Your task to perform on an android device: open app "Mercado Libre" (install if not already installed) Image 0: 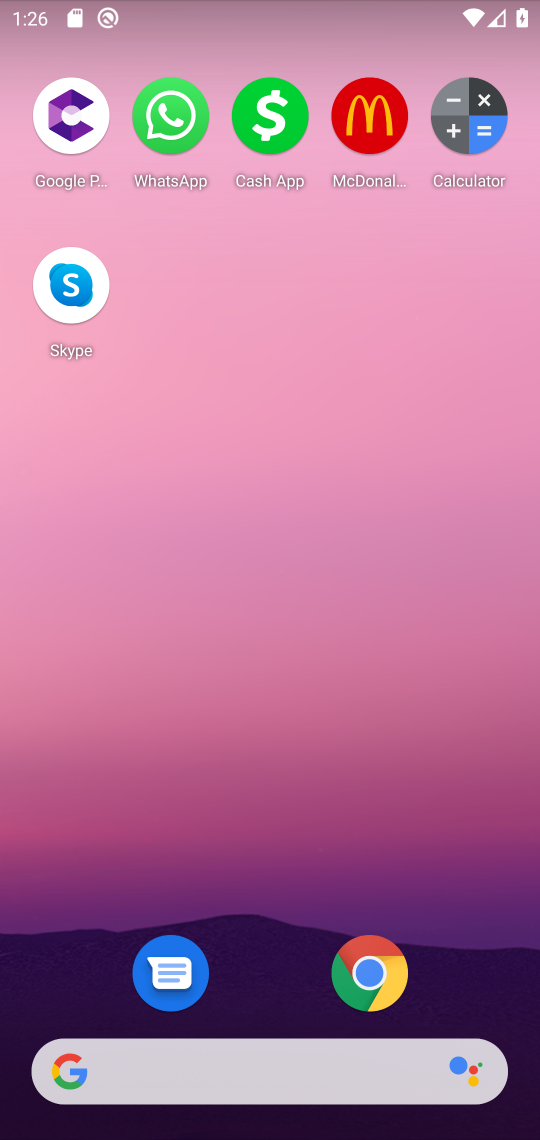
Step 0: drag from (283, 917) to (149, 22)
Your task to perform on an android device: open app "Mercado Libre" (install if not already installed) Image 1: 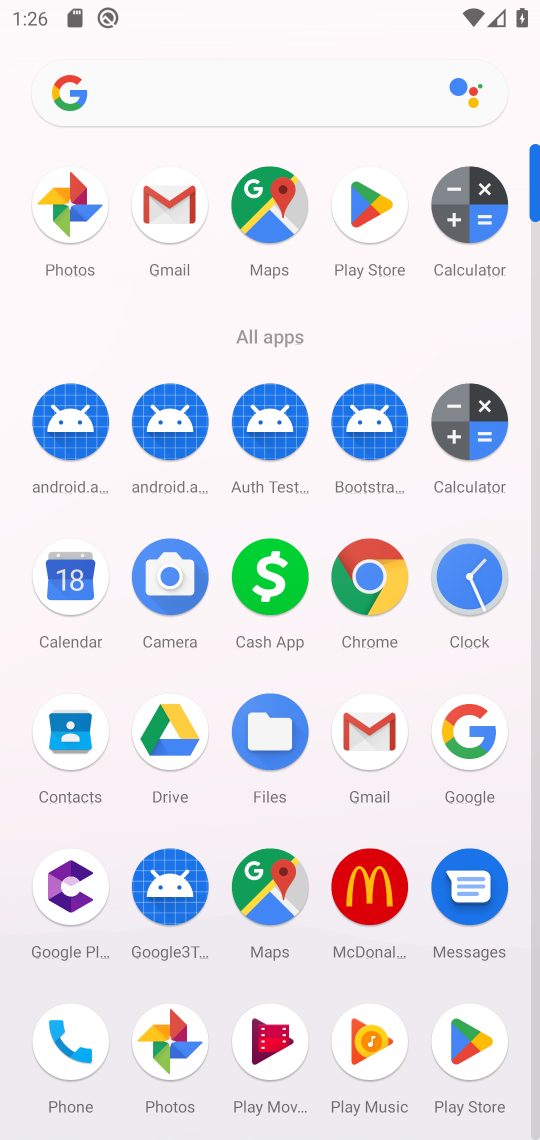
Step 1: click (242, 151)
Your task to perform on an android device: open app "Mercado Libre" (install if not already installed) Image 2: 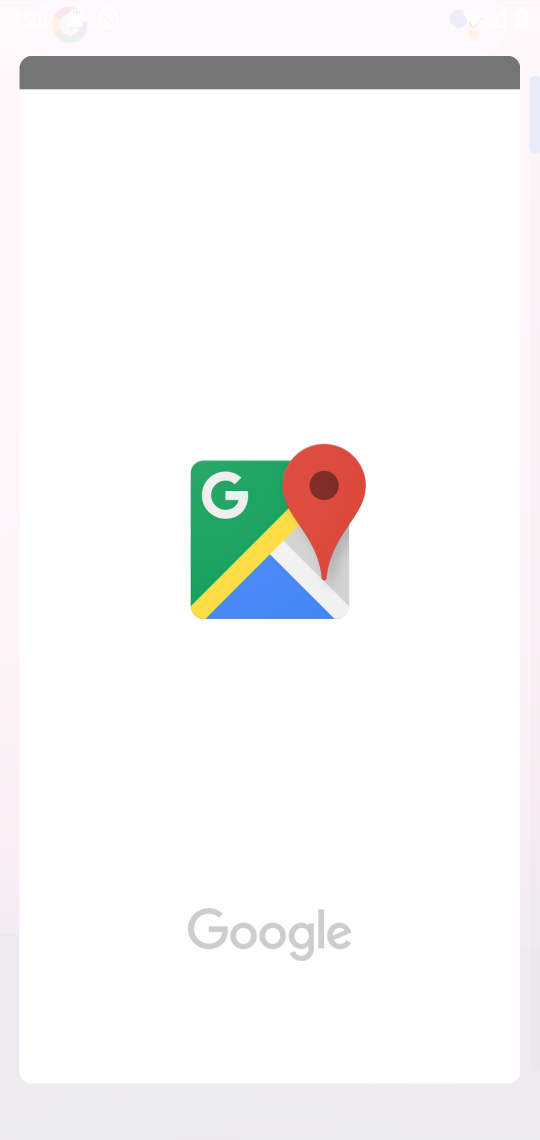
Step 2: click (364, 292)
Your task to perform on an android device: open app "Mercado Libre" (install if not already installed) Image 3: 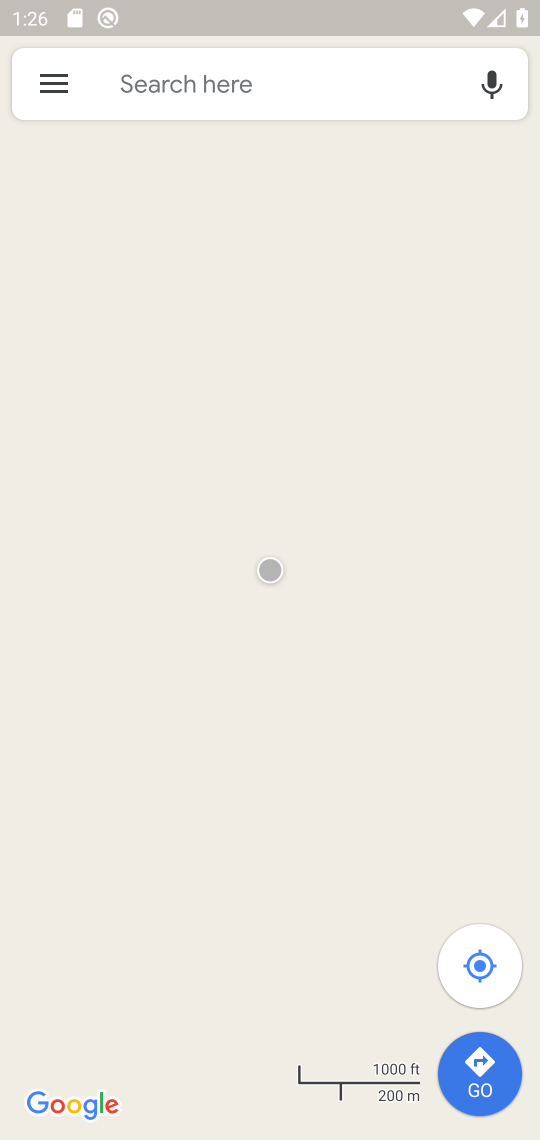
Step 3: press home button
Your task to perform on an android device: open app "Mercado Libre" (install if not already installed) Image 4: 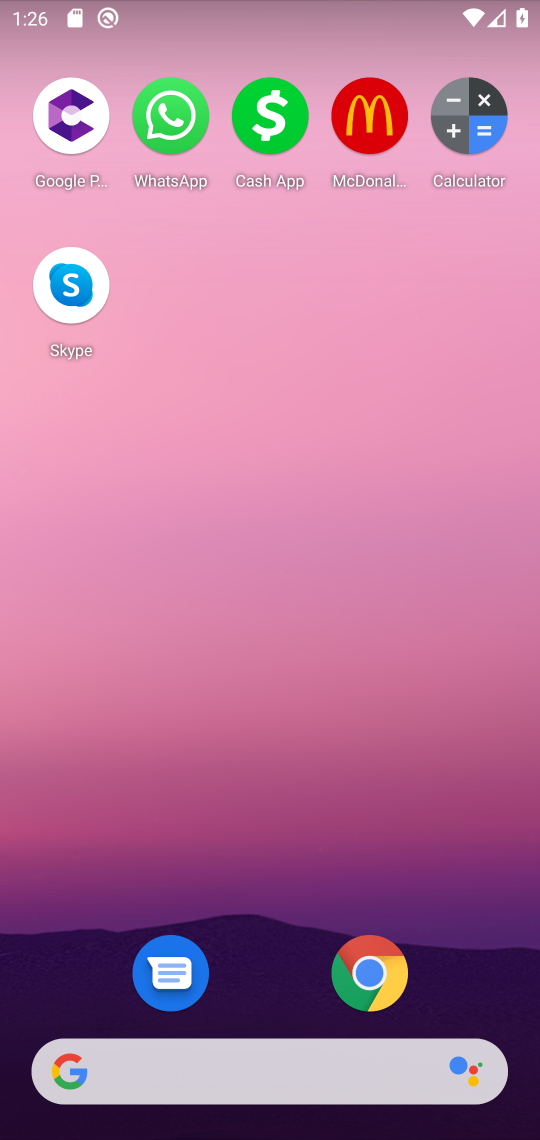
Step 4: drag from (263, 1020) to (293, 187)
Your task to perform on an android device: open app "Mercado Libre" (install if not already installed) Image 5: 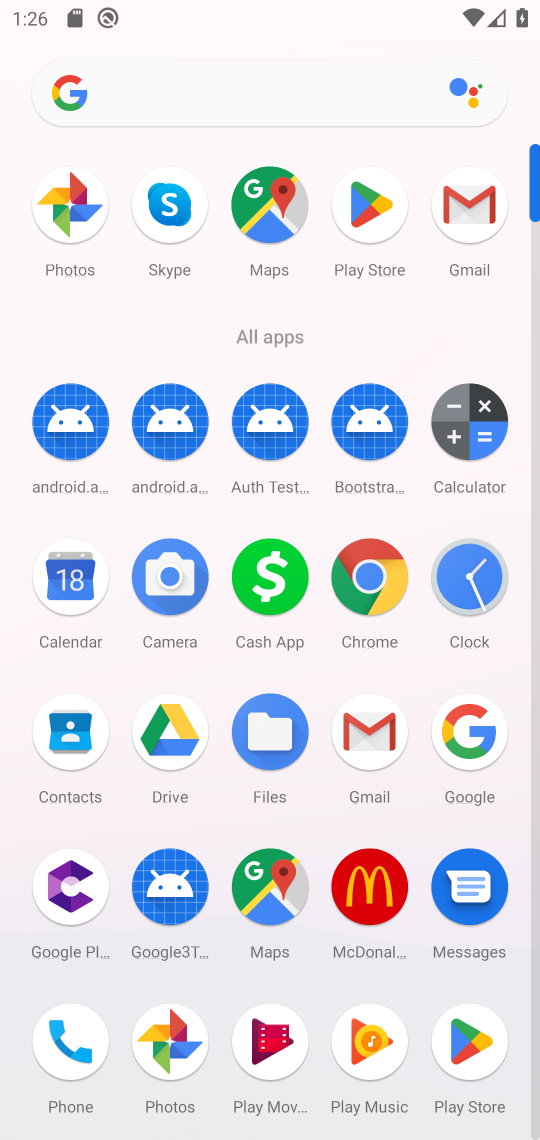
Step 5: click (373, 248)
Your task to perform on an android device: open app "Mercado Libre" (install if not already installed) Image 6: 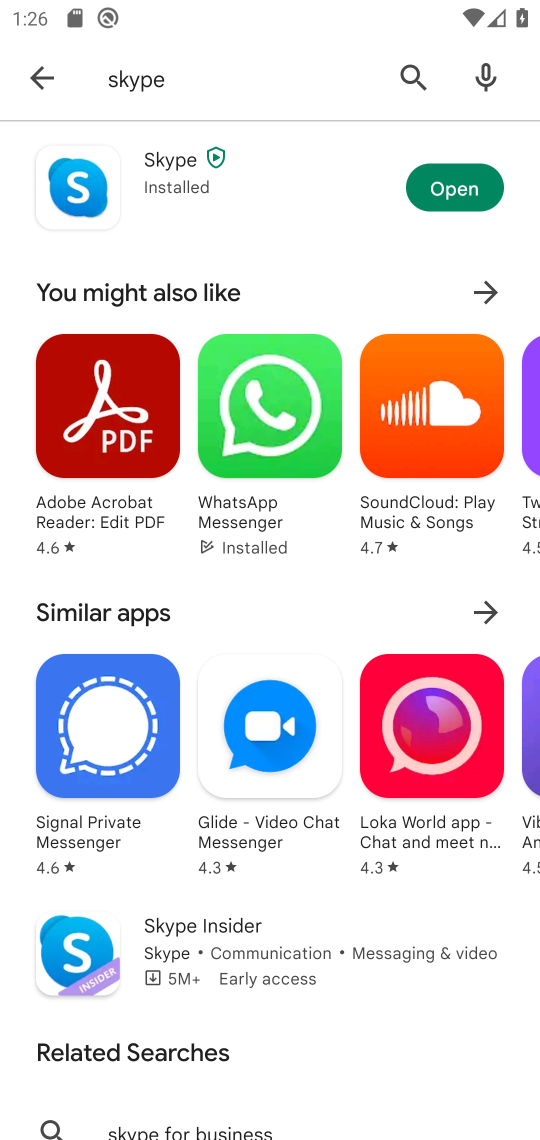
Step 6: click (425, 103)
Your task to perform on an android device: open app "Mercado Libre" (install if not already installed) Image 7: 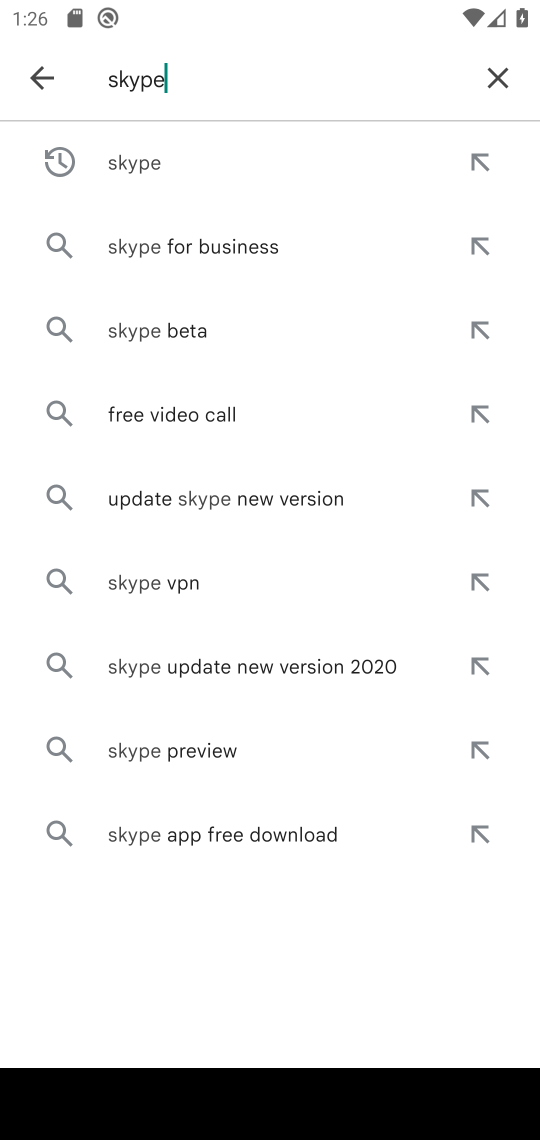
Step 7: click (481, 85)
Your task to perform on an android device: open app "Mercado Libre" (install if not already installed) Image 8: 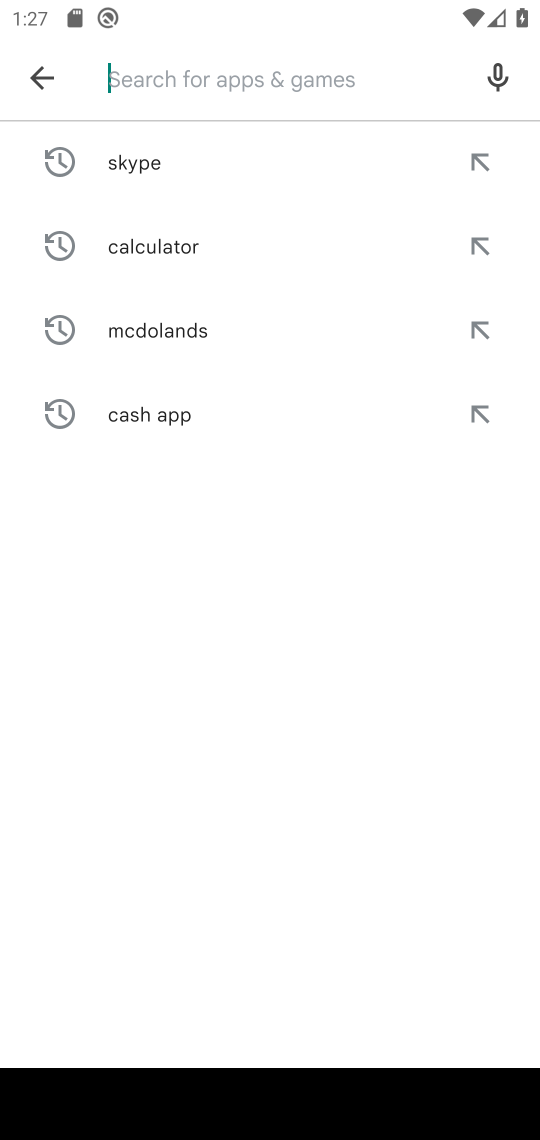
Step 8: type "mercabo"
Your task to perform on an android device: open app "Mercado Libre" (install if not already installed) Image 9: 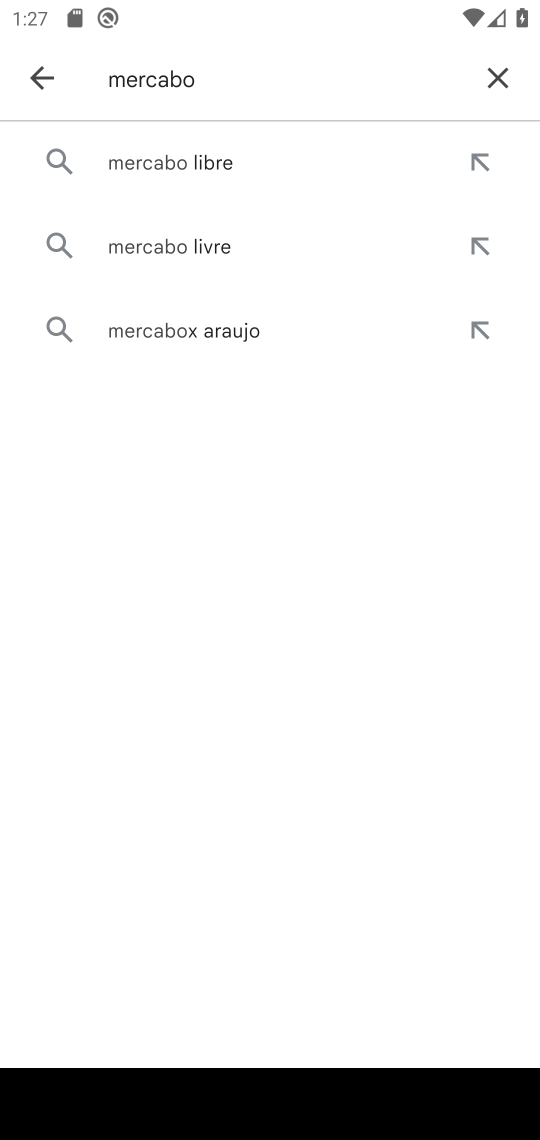
Step 9: click (144, 155)
Your task to perform on an android device: open app "Mercado Libre" (install if not already installed) Image 10: 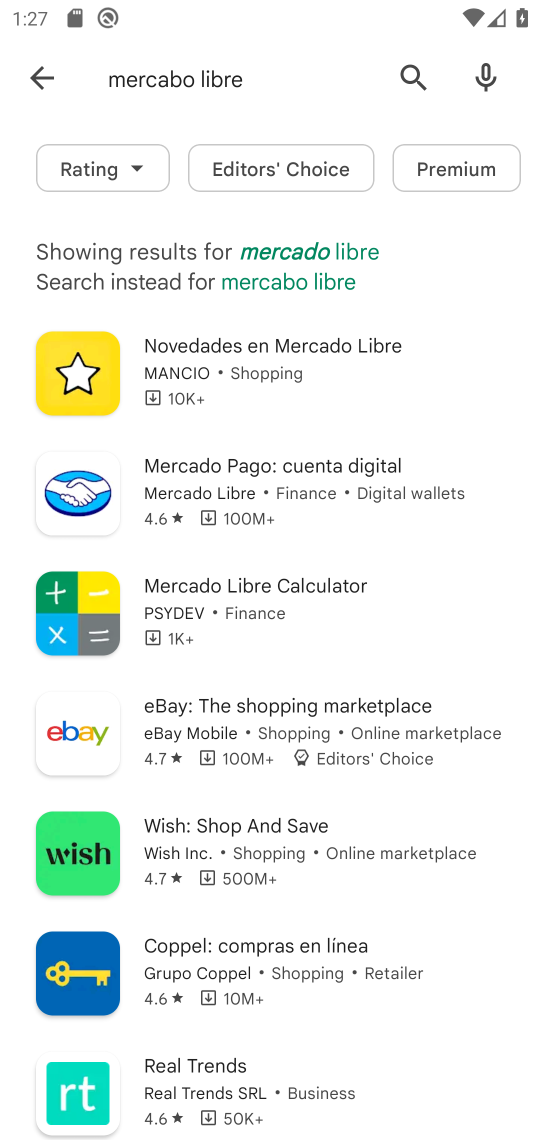
Step 10: click (272, 359)
Your task to perform on an android device: open app "Mercado Libre" (install if not already installed) Image 11: 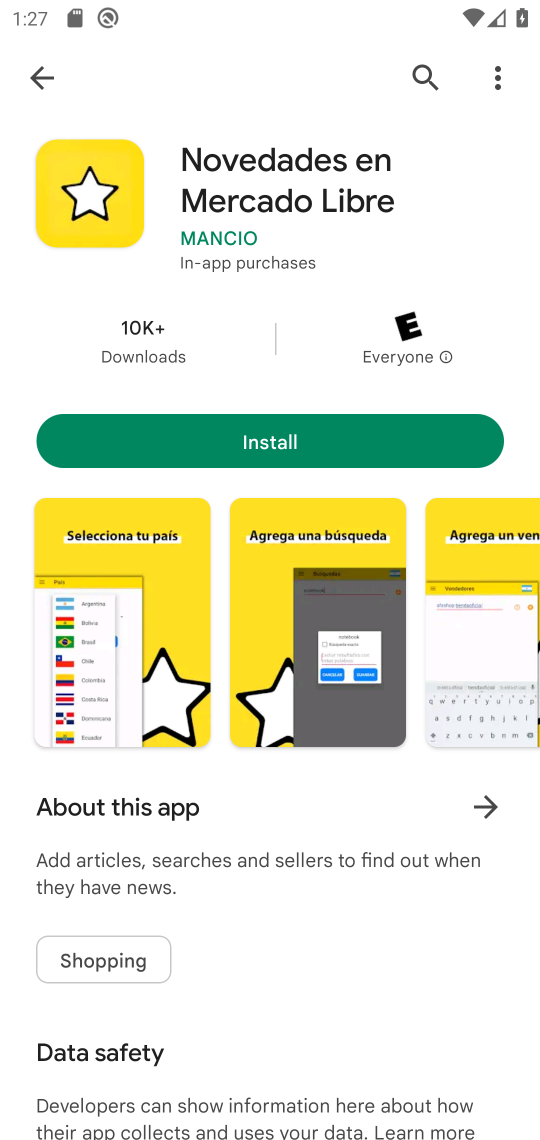
Step 11: click (278, 428)
Your task to perform on an android device: open app "Mercado Libre" (install if not already installed) Image 12: 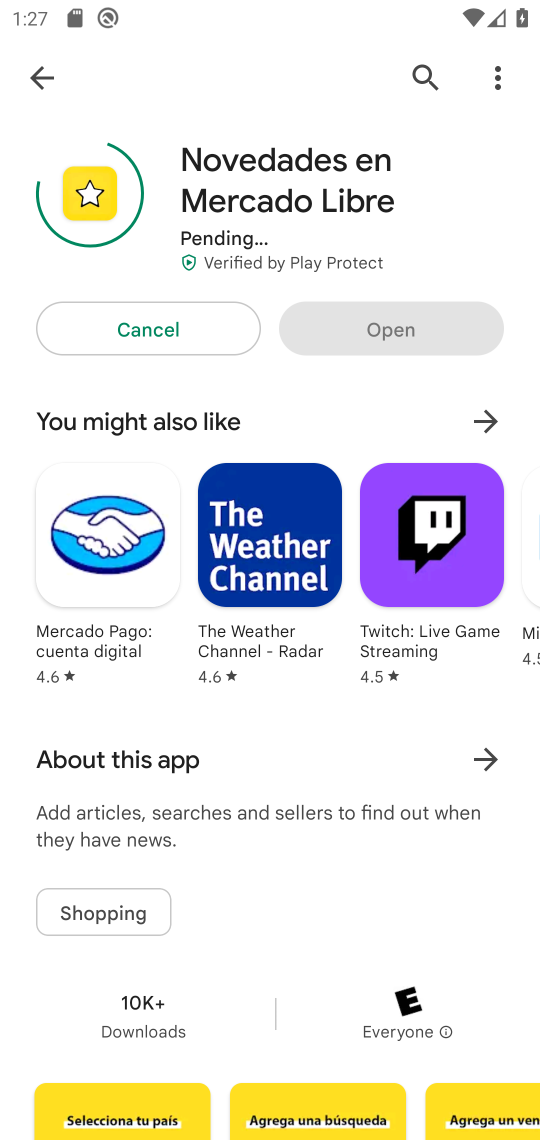
Step 12: task complete